Your task to perform on an android device: turn off airplane mode Image 0: 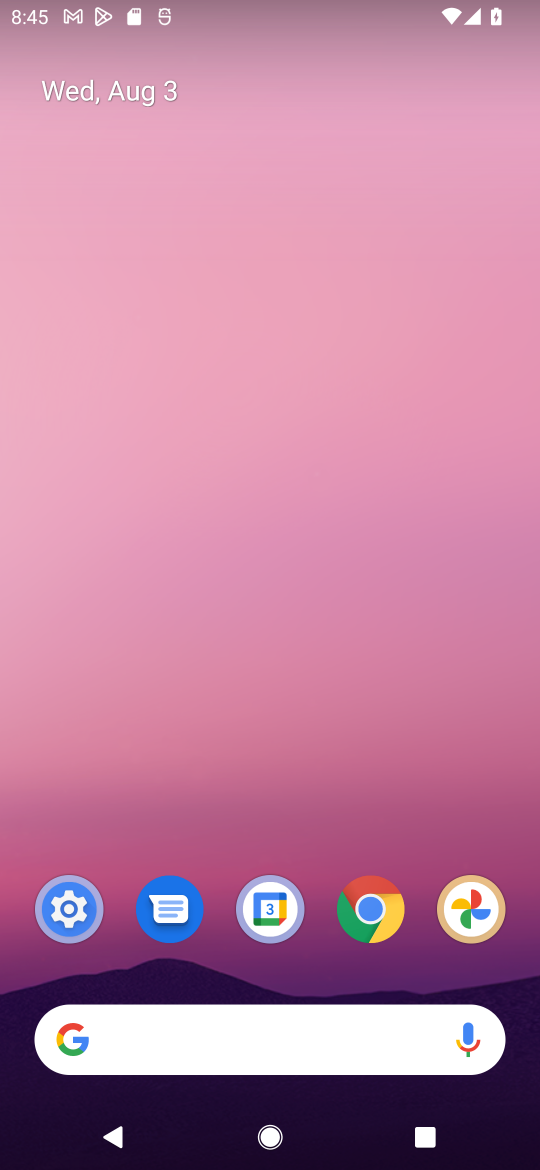
Step 0: press home button
Your task to perform on an android device: turn off airplane mode Image 1: 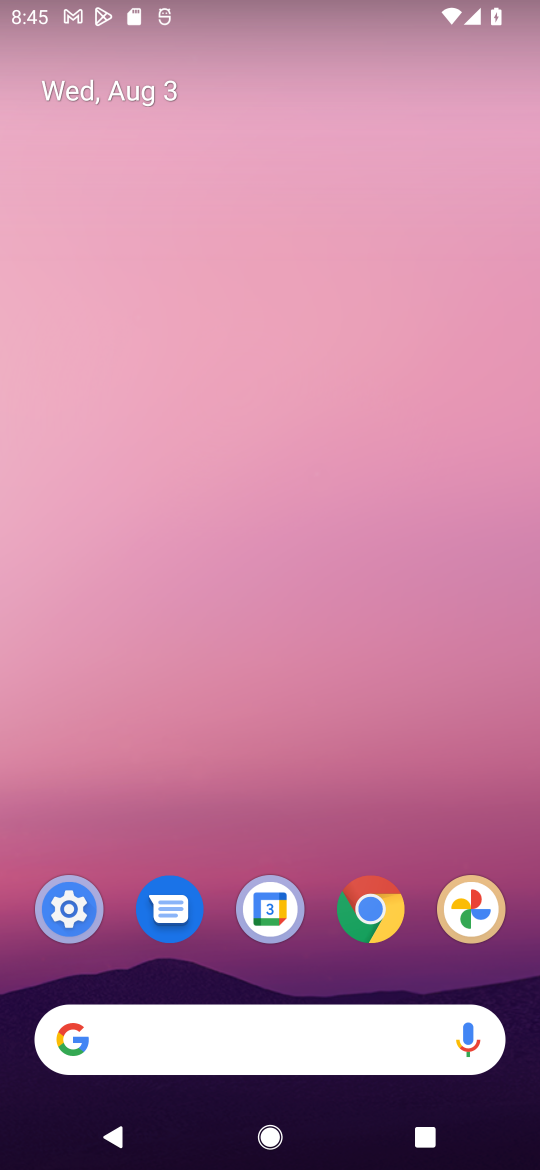
Step 1: drag from (413, 812) to (417, 322)
Your task to perform on an android device: turn off airplane mode Image 2: 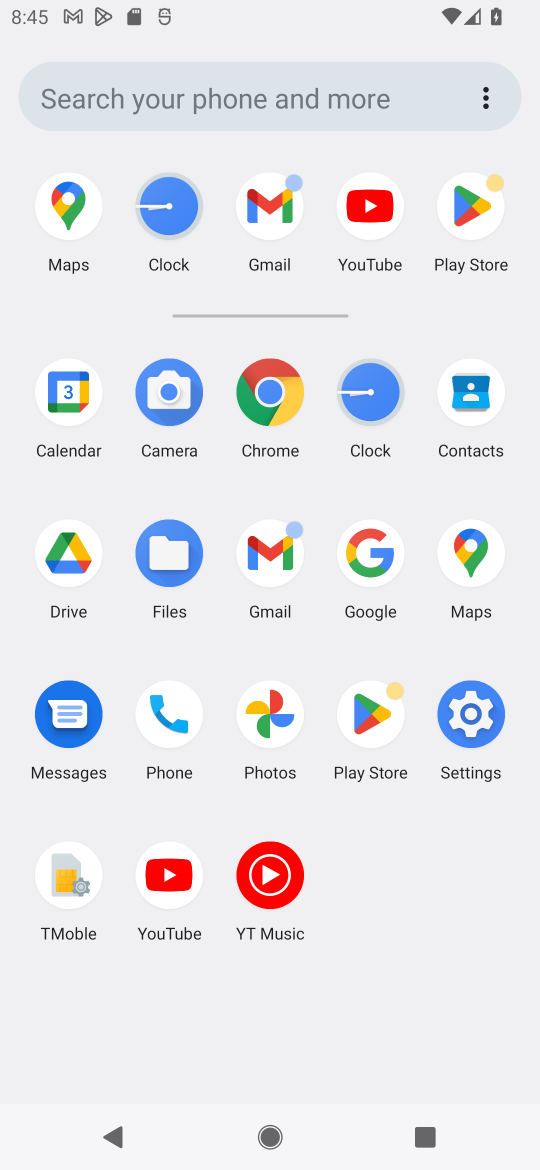
Step 2: click (491, 726)
Your task to perform on an android device: turn off airplane mode Image 3: 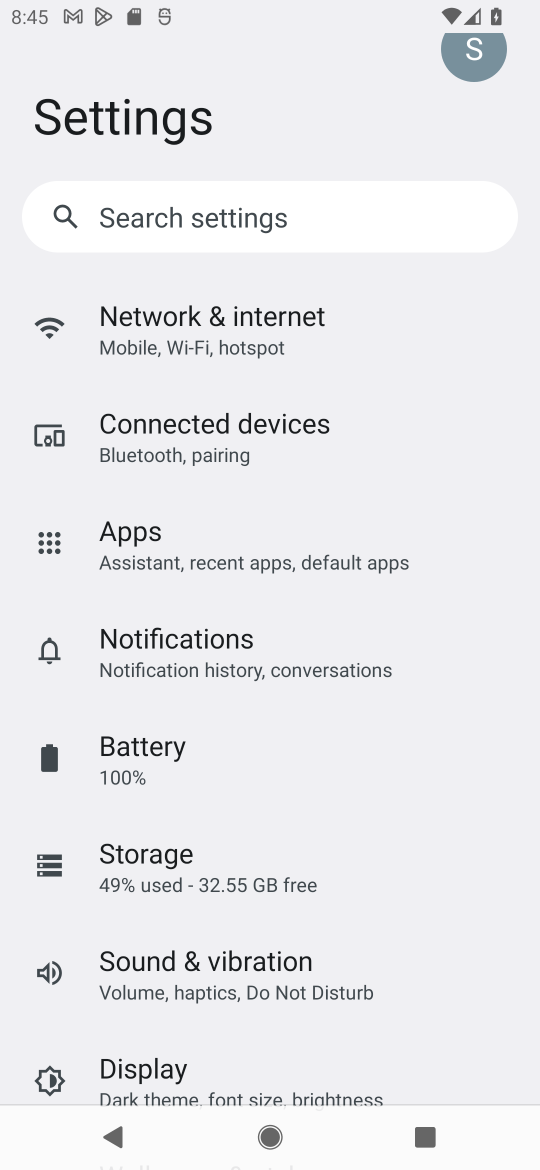
Step 3: drag from (449, 807) to (445, 701)
Your task to perform on an android device: turn off airplane mode Image 4: 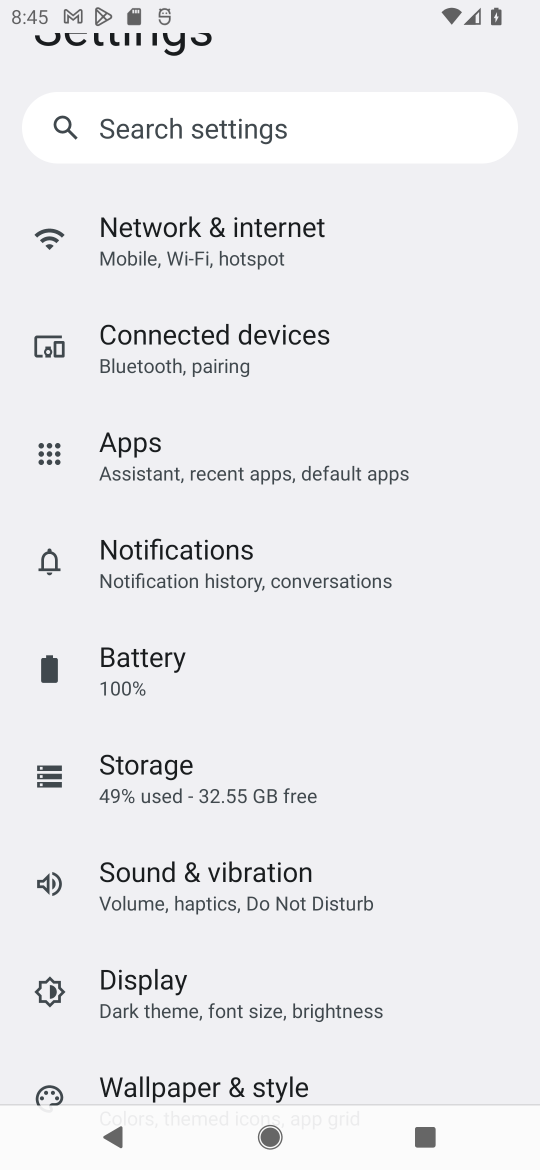
Step 4: drag from (419, 845) to (423, 706)
Your task to perform on an android device: turn off airplane mode Image 5: 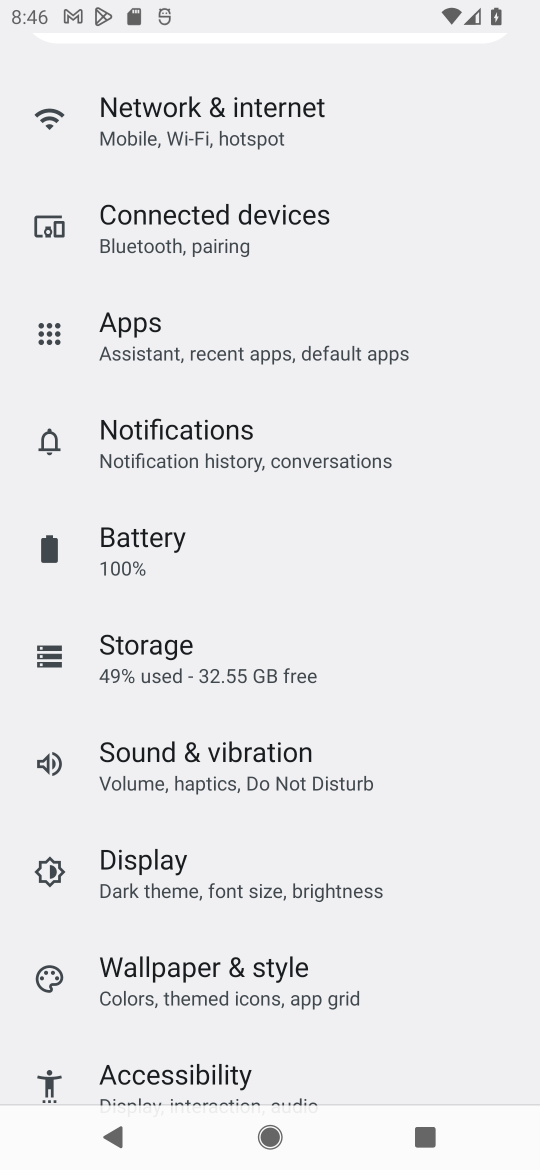
Step 5: drag from (438, 917) to (445, 799)
Your task to perform on an android device: turn off airplane mode Image 6: 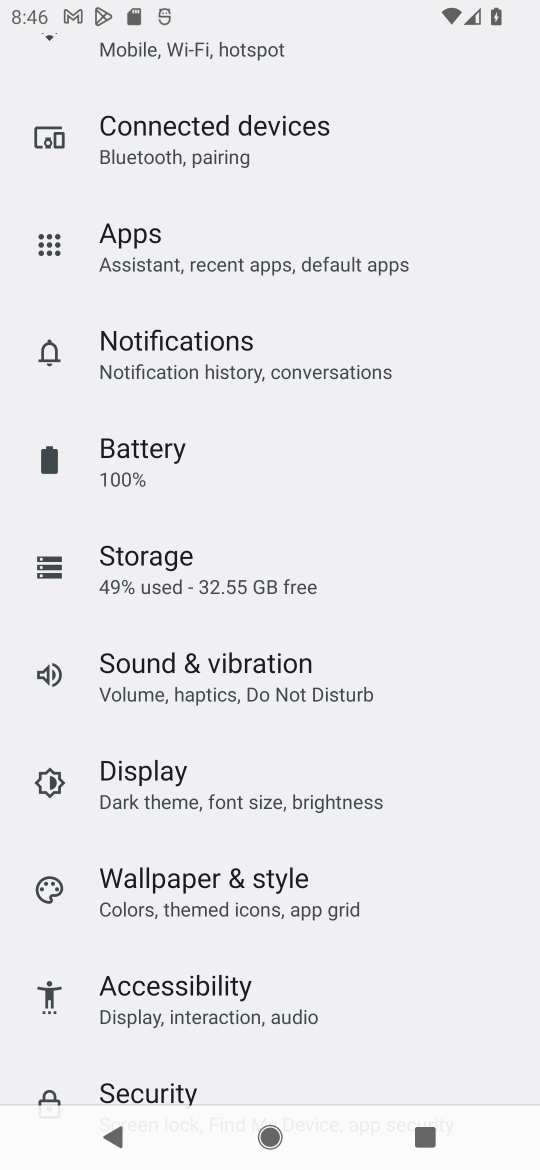
Step 6: drag from (447, 944) to (450, 768)
Your task to perform on an android device: turn off airplane mode Image 7: 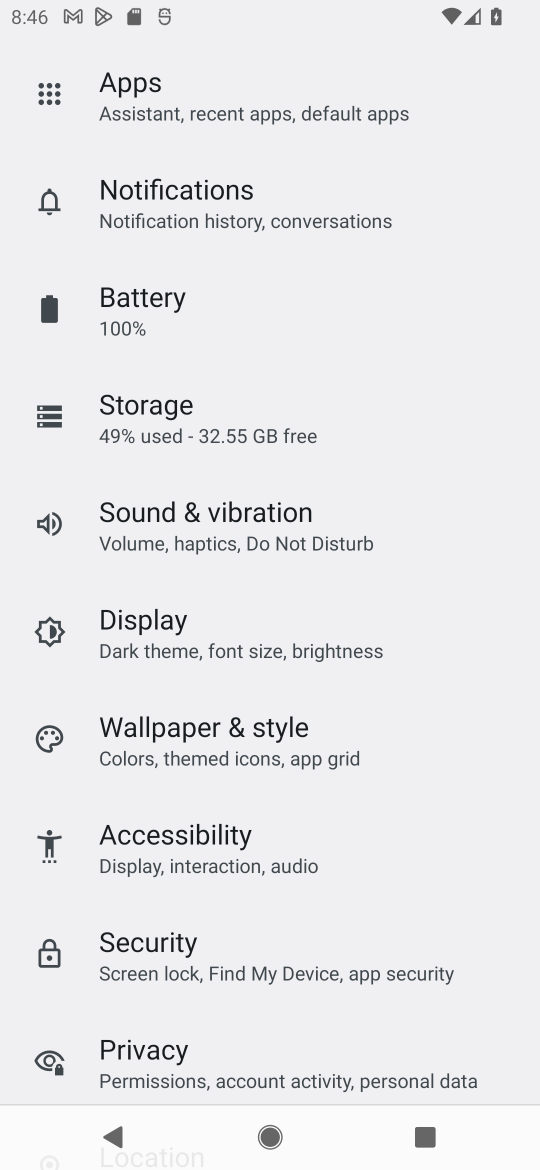
Step 7: drag from (457, 1017) to (457, 809)
Your task to perform on an android device: turn off airplane mode Image 8: 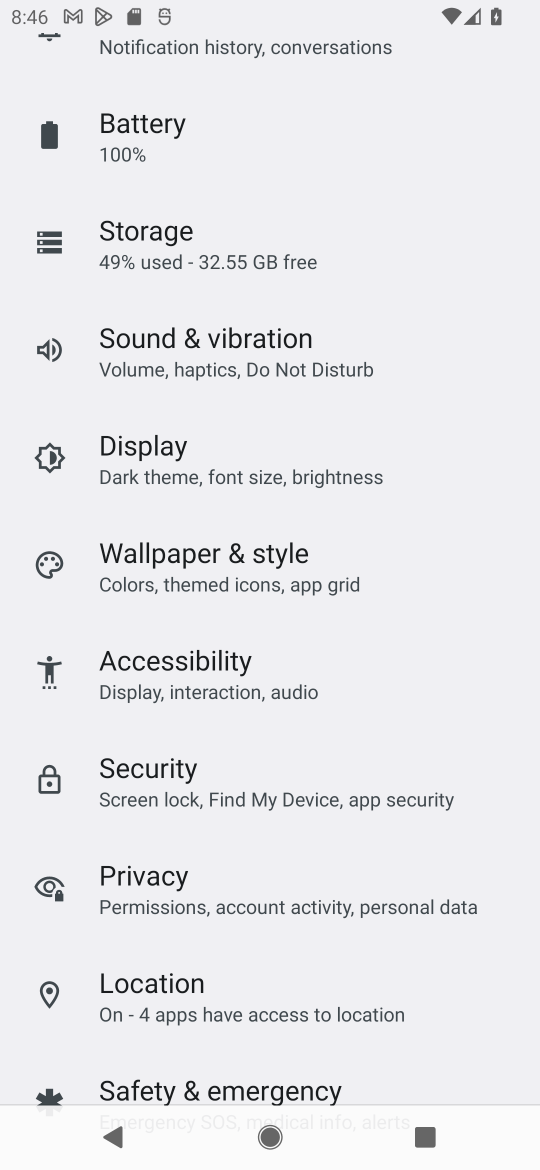
Step 8: drag from (454, 1000) to (448, 776)
Your task to perform on an android device: turn off airplane mode Image 9: 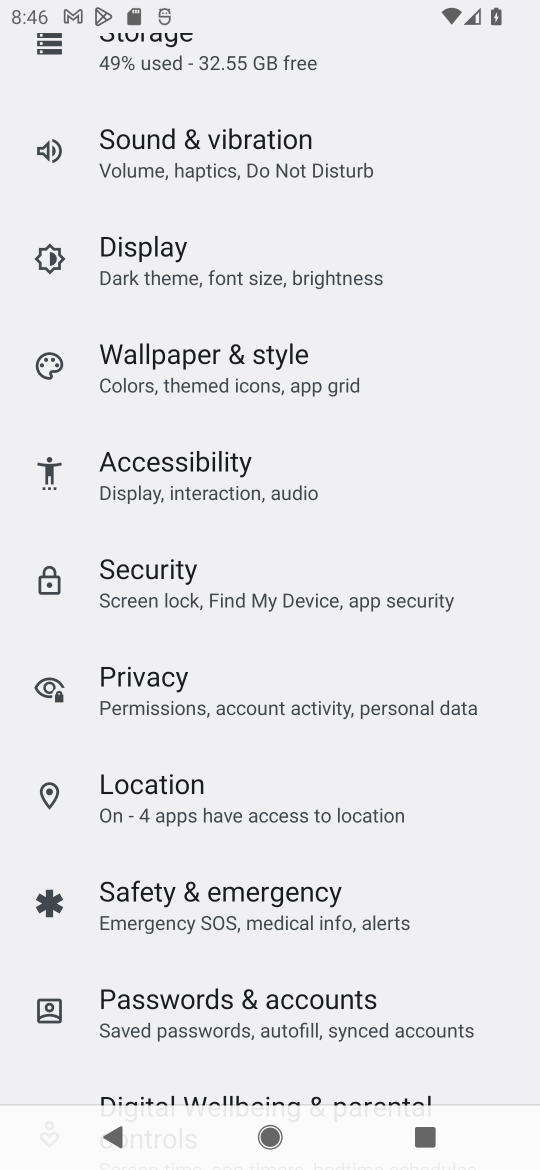
Step 9: drag from (463, 901) to (458, 756)
Your task to perform on an android device: turn off airplane mode Image 10: 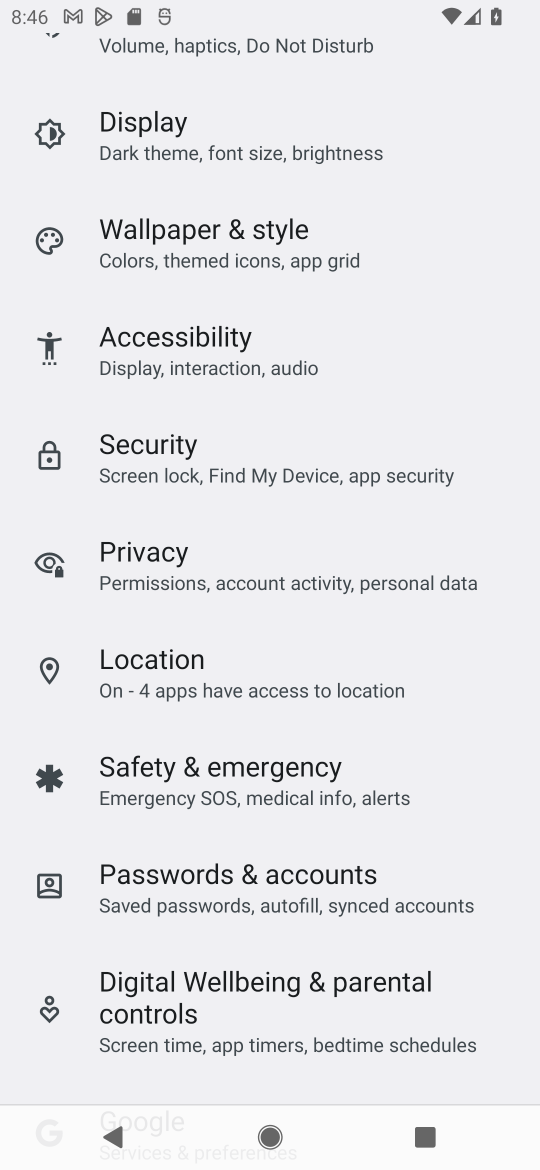
Step 10: drag from (465, 610) to (462, 827)
Your task to perform on an android device: turn off airplane mode Image 11: 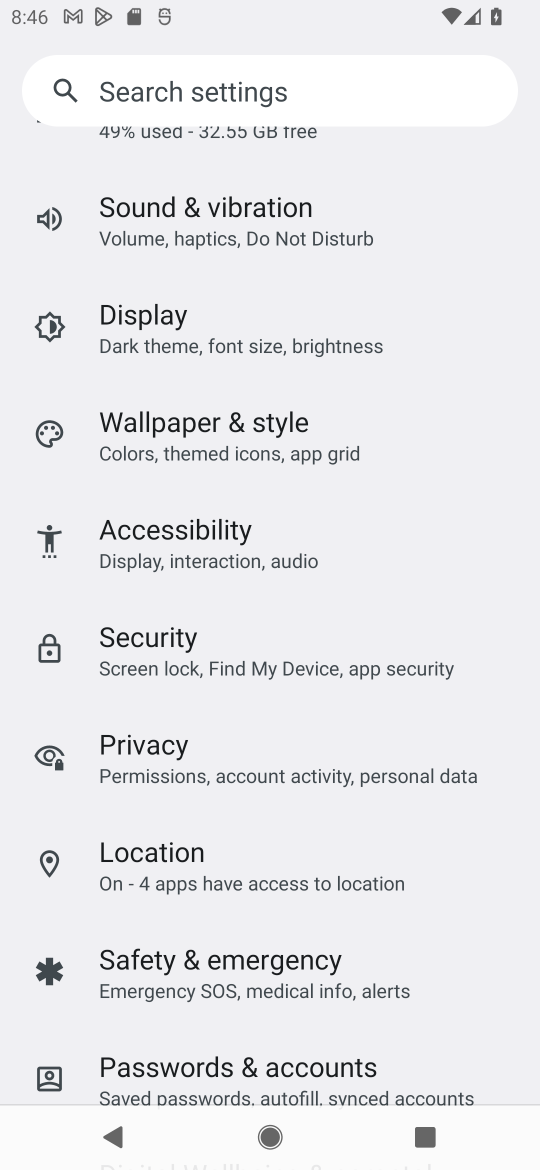
Step 11: drag from (450, 518) to (454, 749)
Your task to perform on an android device: turn off airplane mode Image 12: 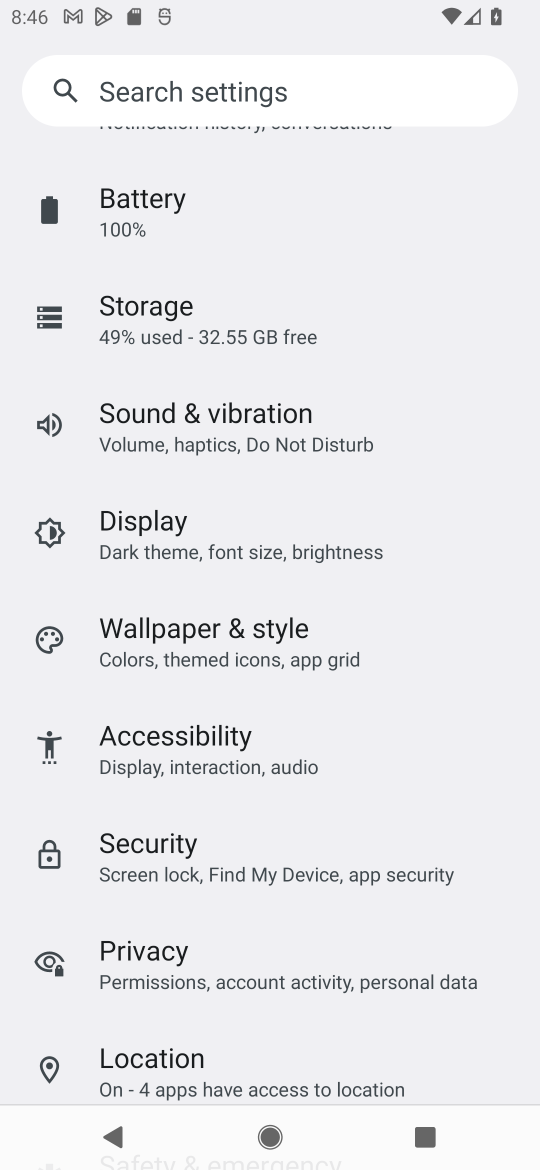
Step 12: drag from (437, 551) to (437, 771)
Your task to perform on an android device: turn off airplane mode Image 13: 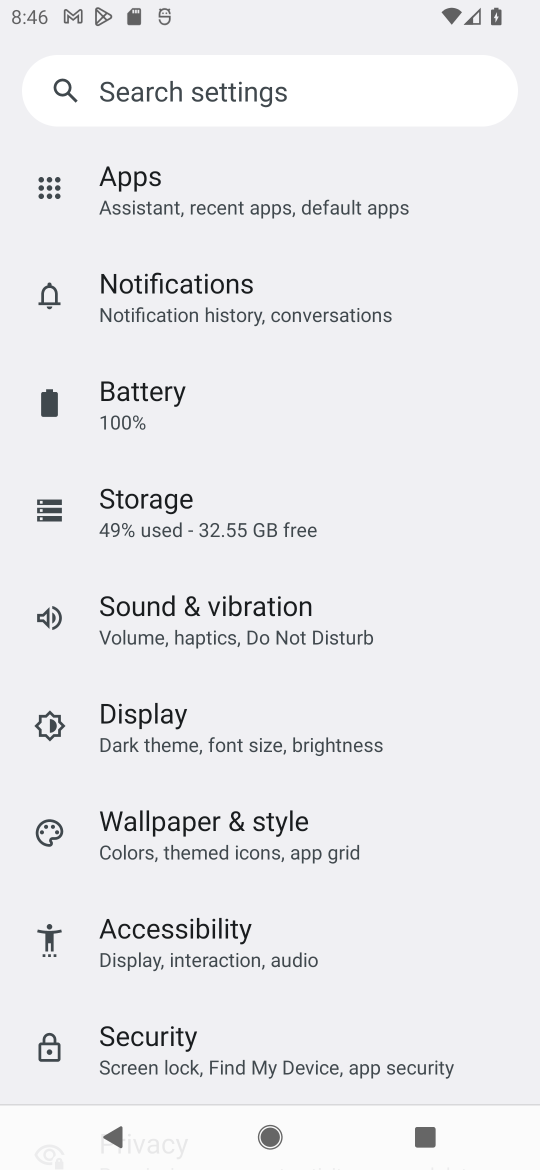
Step 13: drag from (420, 555) to (439, 831)
Your task to perform on an android device: turn off airplane mode Image 14: 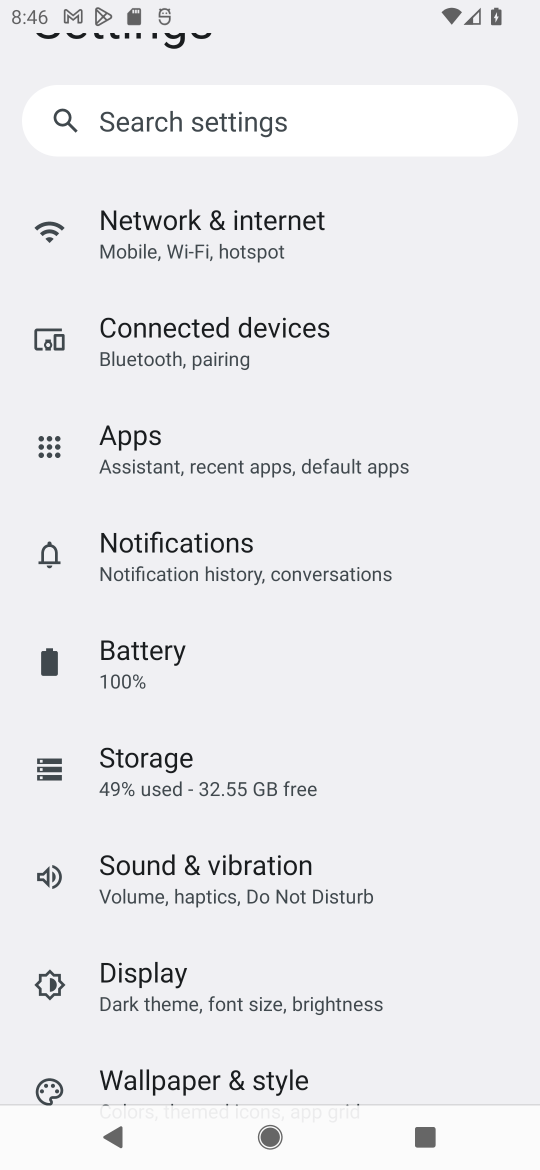
Step 14: drag from (423, 486) to (445, 835)
Your task to perform on an android device: turn off airplane mode Image 15: 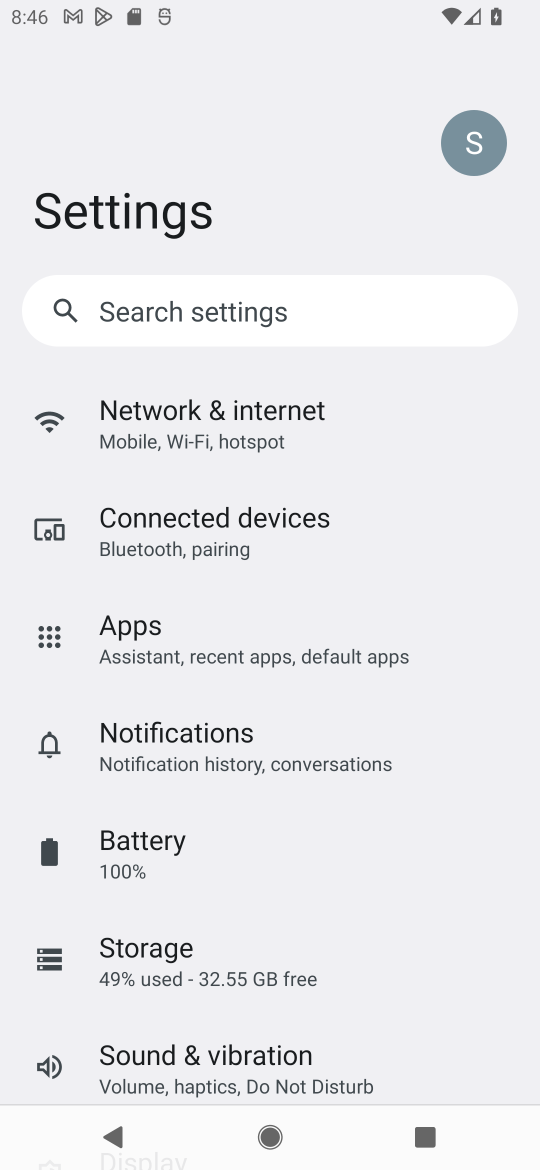
Step 15: click (293, 412)
Your task to perform on an android device: turn off airplane mode Image 16: 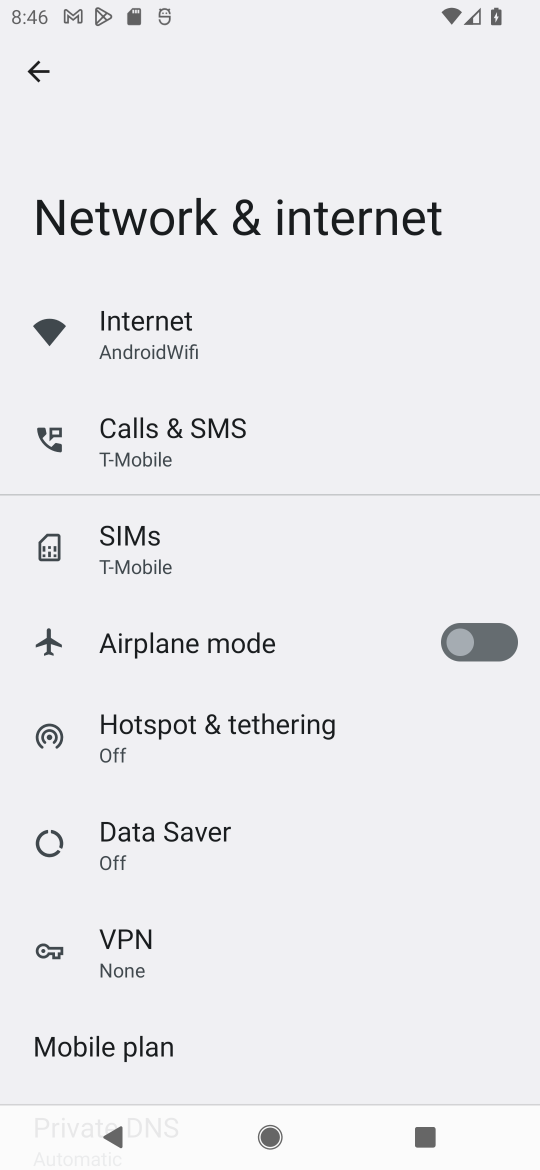
Step 16: task complete